Your task to perform on an android device: Go to calendar. Show me events next week Image 0: 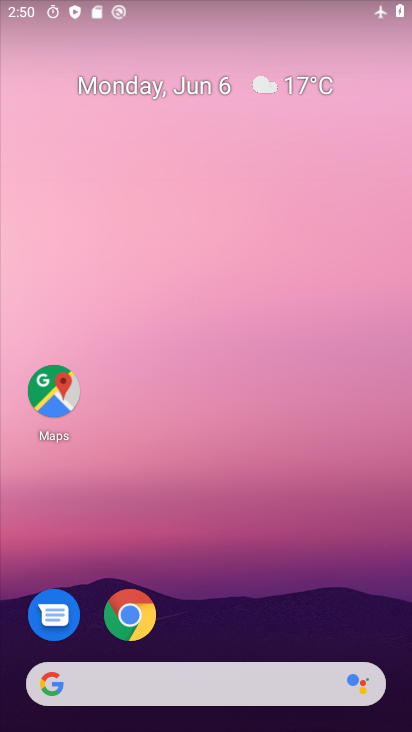
Step 0: drag from (229, 610) to (248, 267)
Your task to perform on an android device: Go to calendar. Show me events next week Image 1: 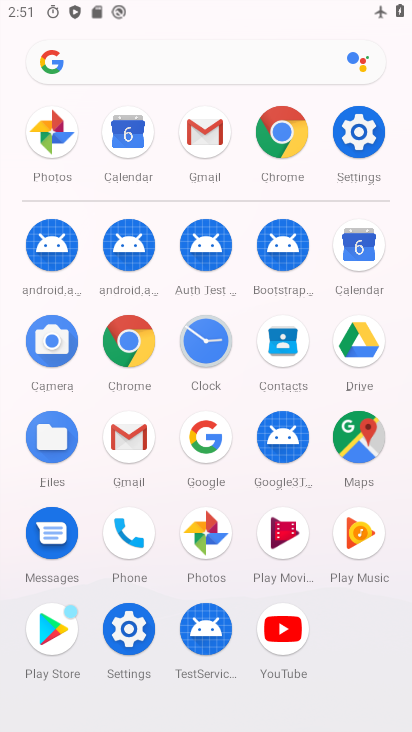
Step 1: click (374, 239)
Your task to perform on an android device: Go to calendar. Show me events next week Image 2: 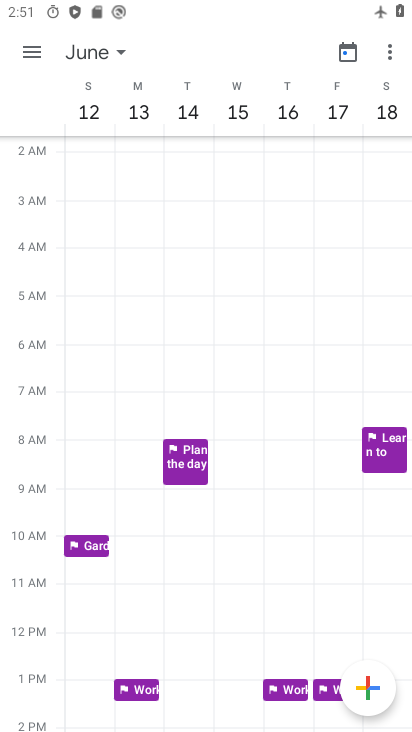
Step 2: task complete